Your task to perform on an android device: snooze an email in the gmail app Image 0: 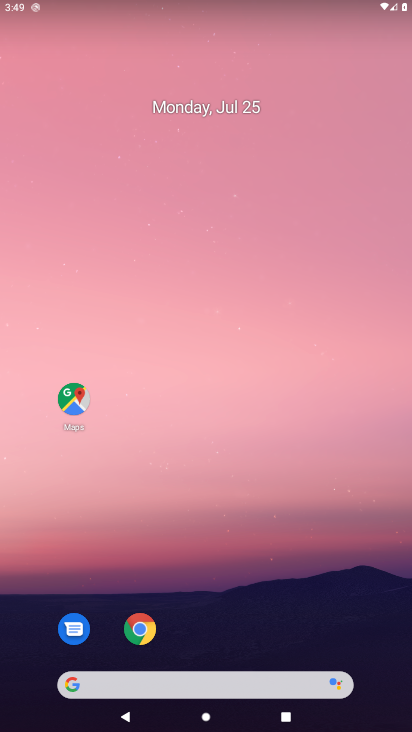
Step 0: drag from (46, 697) to (235, 106)
Your task to perform on an android device: snooze an email in the gmail app Image 1: 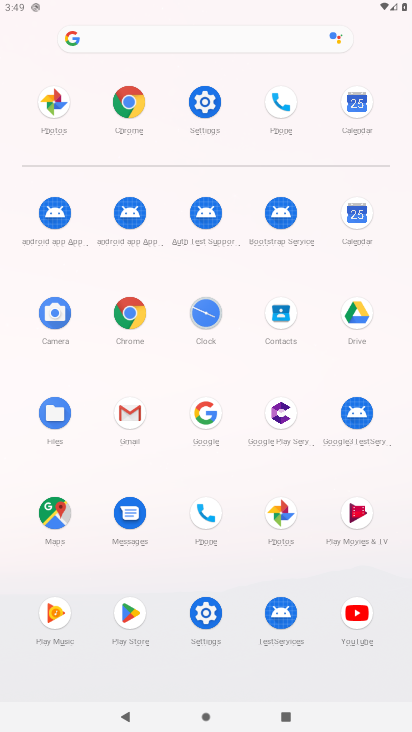
Step 1: click (121, 414)
Your task to perform on an android device: snooze an email in the gmail app Image 2: 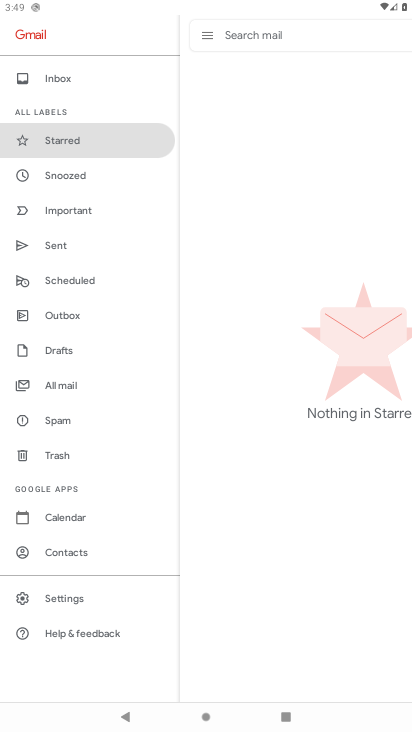
Step 2: click (62, 174)
Your task to perform on an android device: snooze an email in the gmail app Image 3: 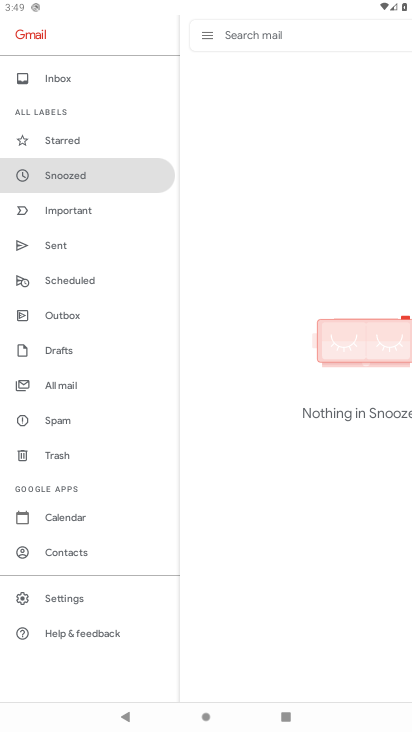
Step 3: task complete